Your task to perform on an android device: Toggle the flashlight Image 0: 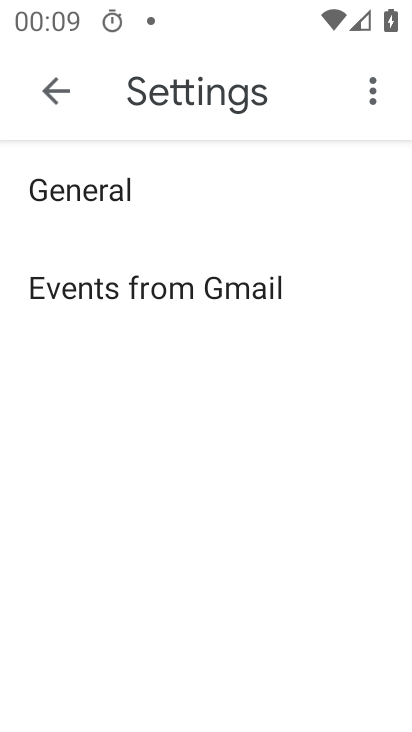
Step 0: press home button
Your task to perform on an android device: Toggle the flashlight Image 1: 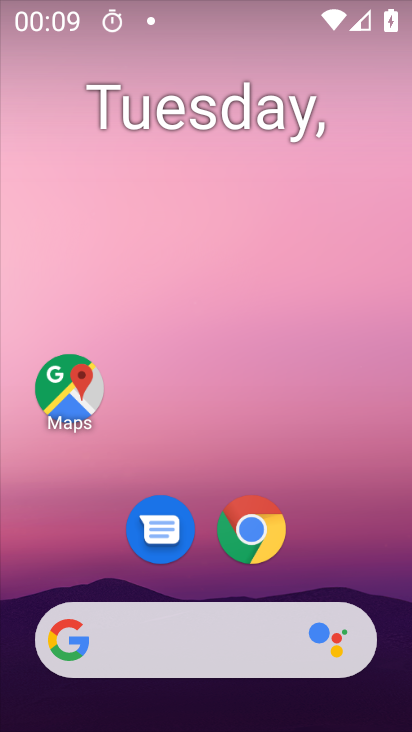
Step 1: task complete